Your task to perform on an android device: Go to ESPN.com Image 0: 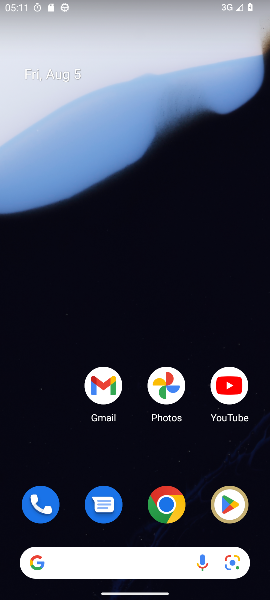
Step 0: click (72, 566)
Your task to perform on an android device: Go to ESPN.com Image 1: 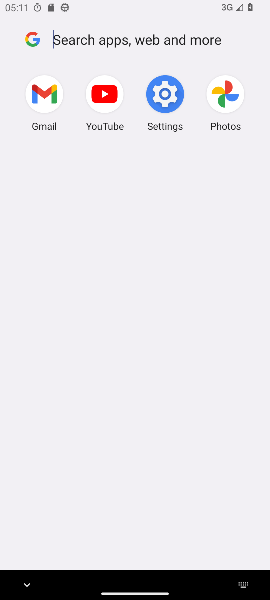
Step 1: type "ESPN.com"
Your task to perform on an android device: Go to ESPN.com Image 2: 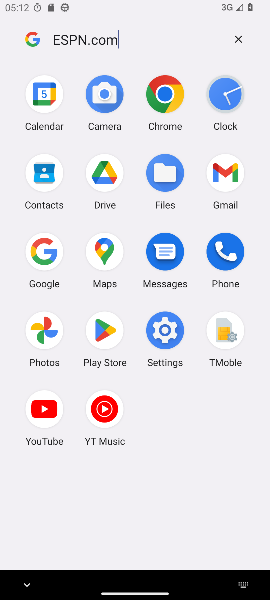
Step 2: task complete